Your task to perform on an android device: See recent photos Image 0: 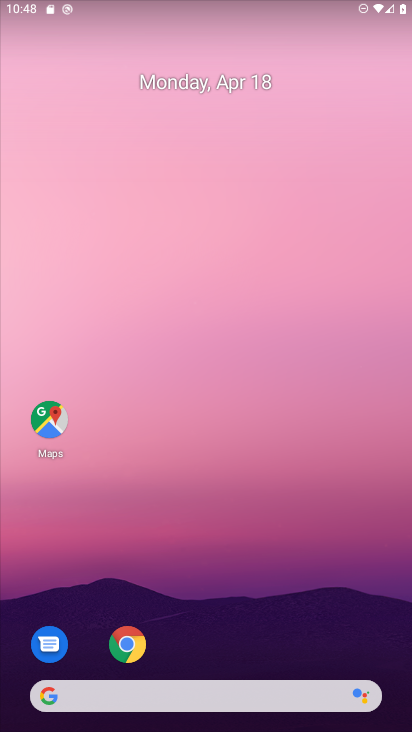
Step 0: drag from (193, 540) to (261, 6)
Your task to perform on an android device: See recent photos Image 1: 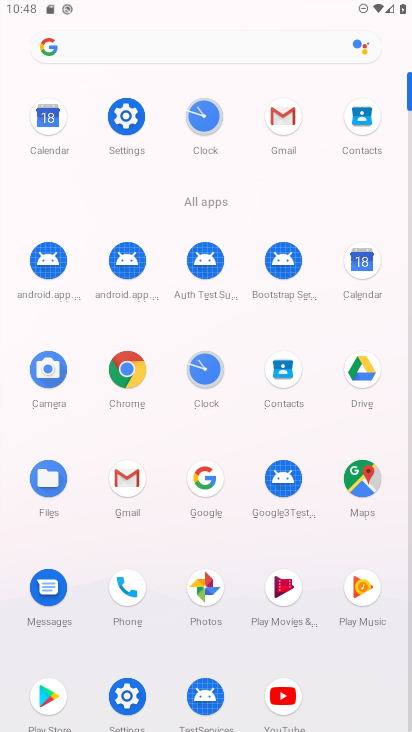
Step 1: click (213, 596)
Your task to perform on an android device: See recent photos Image 2: 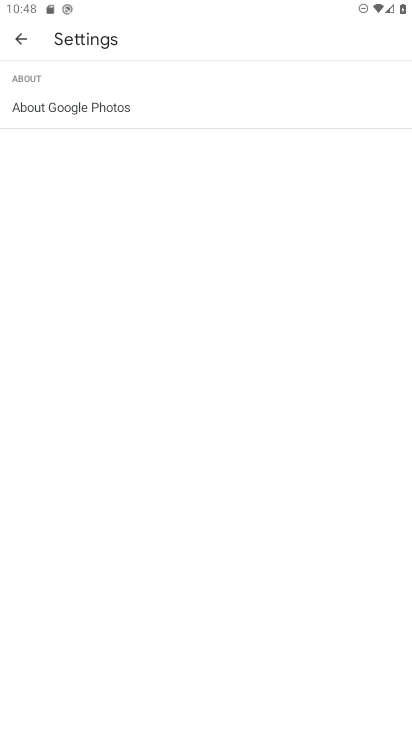
Step 2: click (20, 40)
Your task to perform on an android device: See recent photos Image 3: 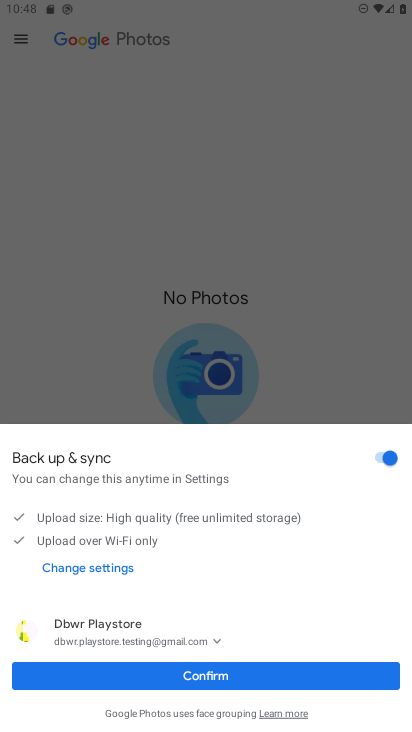
Step 3: click (239, 675)
Your task to perform on an android device: See recent photos Image 4: 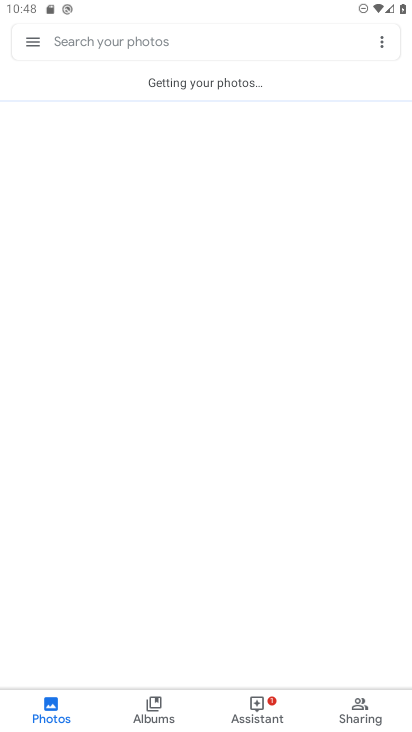
Step 4: click (27, 47)
Your task to perform on an android device: See recent photos Image 5: 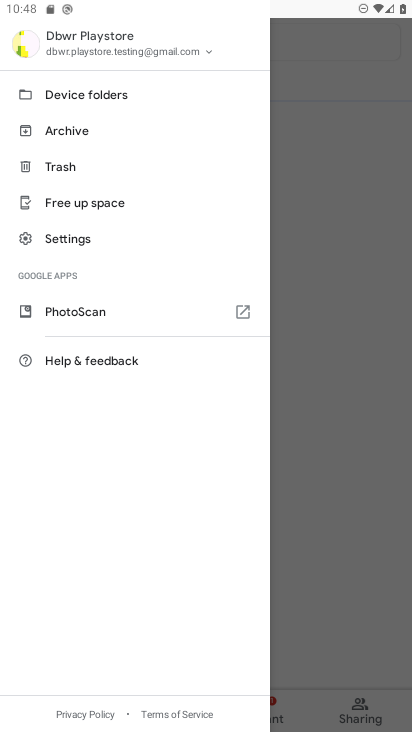
Step 5: click (309, 242)
Your task to perform on an android device: See recent photos Image 6: 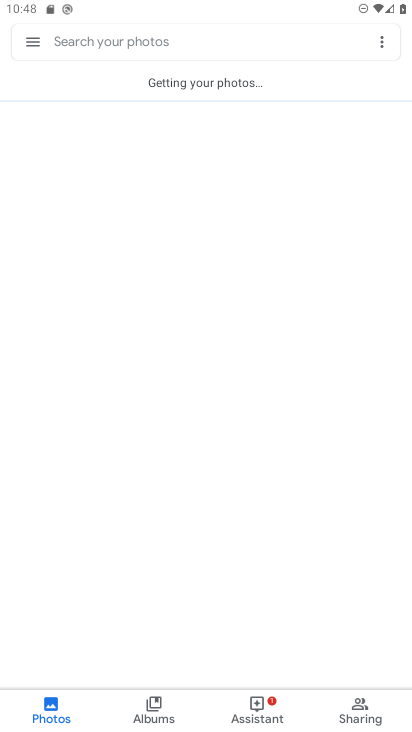
Step 6: task complete